Your task to perform on an android device: Open Yahoo.com Image 0: 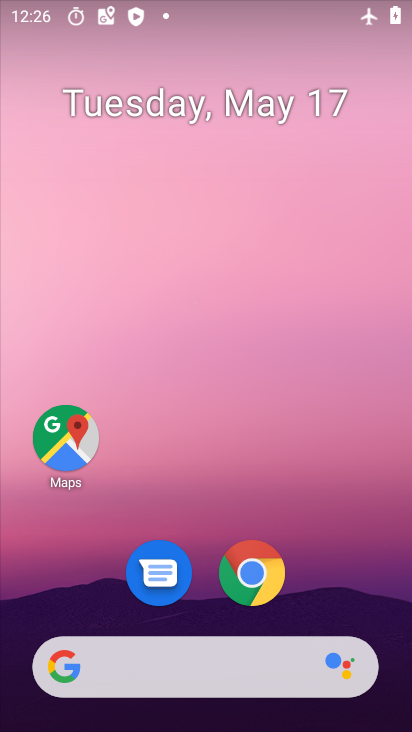
Step 0: drag from (253, 592) to (258, 58)
Your task to perform on an android device: Open Yahoo.com Image 1: 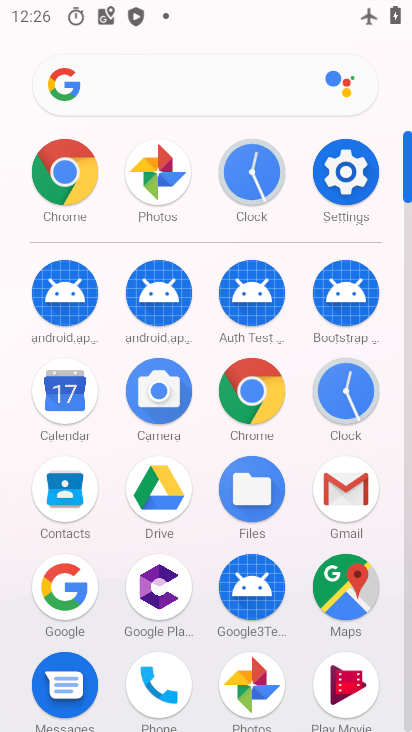
Step 1: click (244, 95)
Your task to perform on an android device: Open Yahoo.com Image 2: 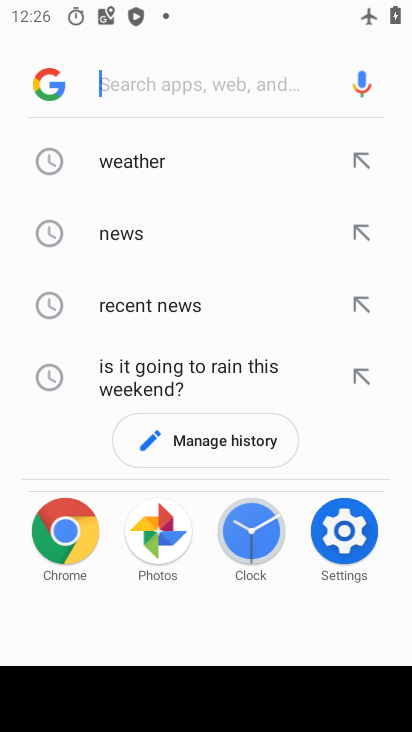
Step 2: type "yahoo.com"
Your task to perform on an android device: Open Yahoo.com Image 3: 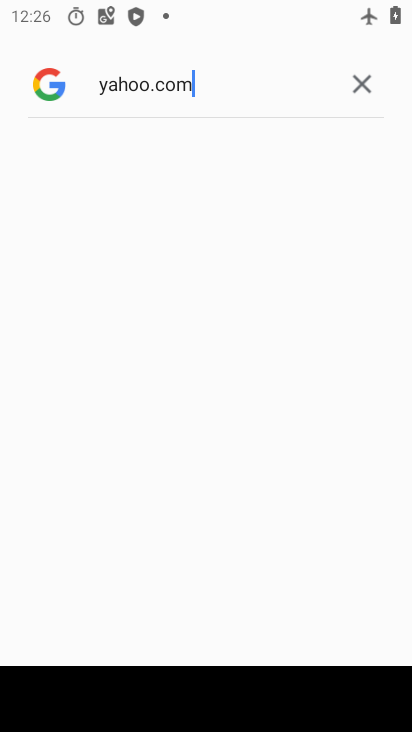
Step 3: task complete